Your task to perform on an android device: turn off smart reply in the gmail app Image 0: 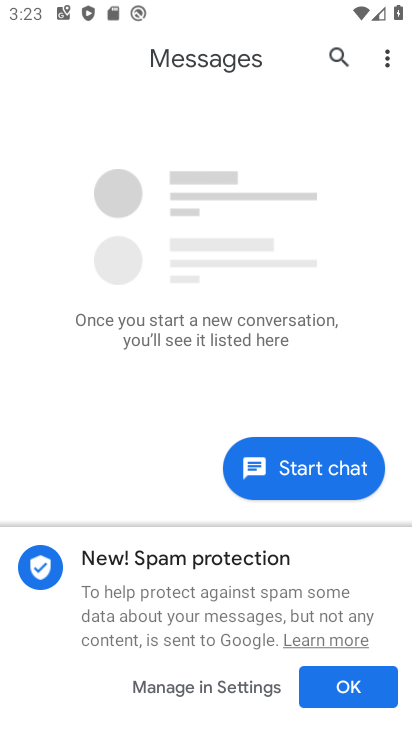
Step 0: press home button
Your task to perform on an android device: turn off smart reply in the gmail app Image 1: 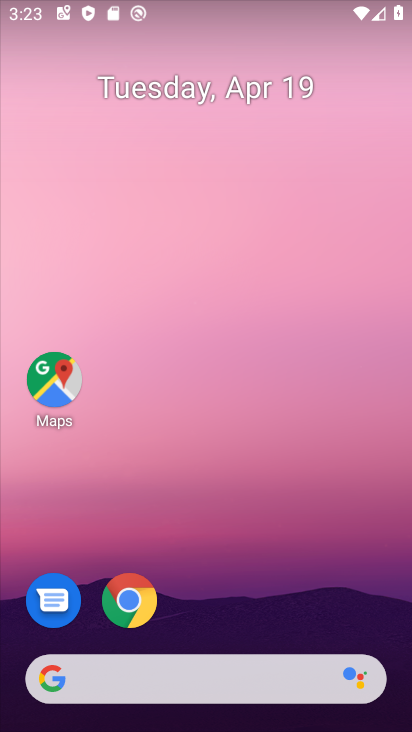
Step 1: drag from (239, 600) to (181, 104)
Your task to perform on an android device: turn off smart reply in the gmail app Image 2: 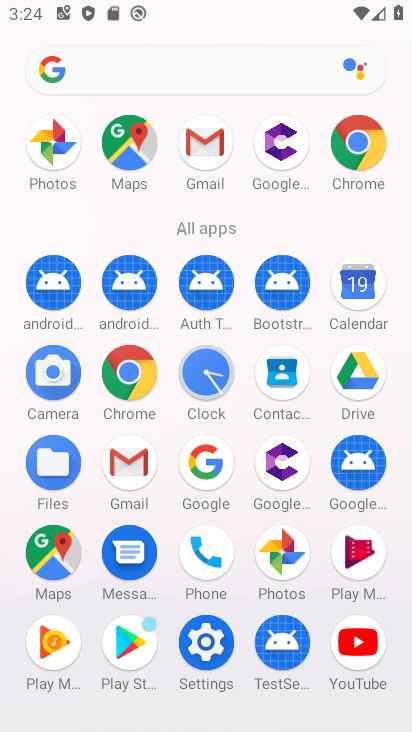
Step 2: click (205, 159)
Your task to perform on an android device: turn off smart reply in the gmail app Image 3: 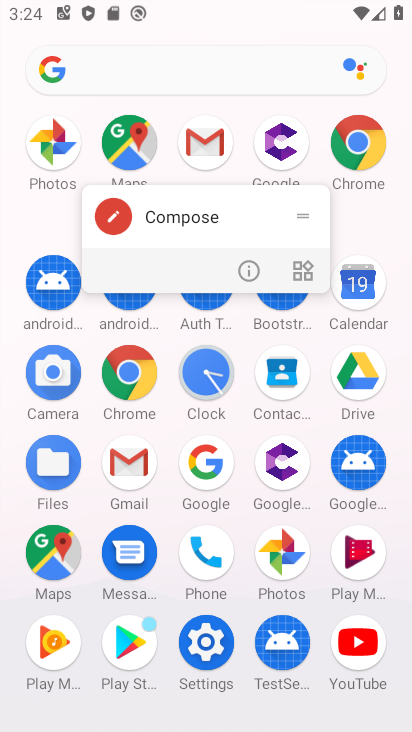
Step 3: click (207, 138)
Your task to perform on an android device: turn off smart reply in the gmail app Image 4: 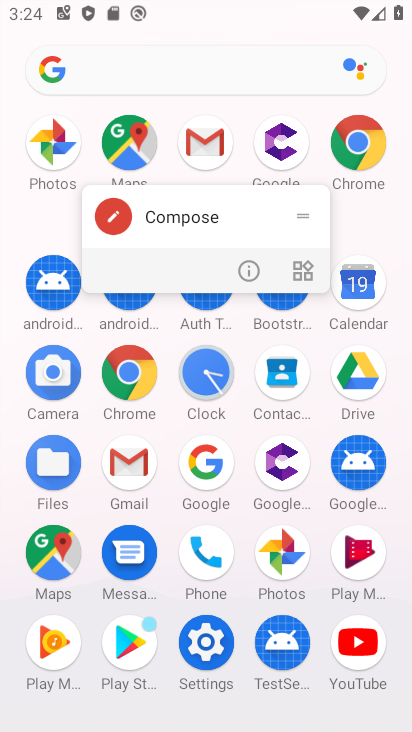
Step 4: click (207, 138)
Your task to perform on an android device: turn off smart reply in the gmail app Image 5: 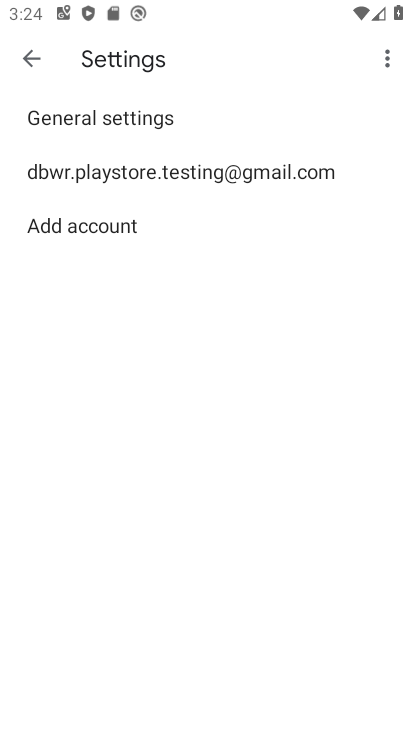
Step 5: click (237, 169)
Your task to perform on an android device: turn off smart reply in the gmail app Image 6: 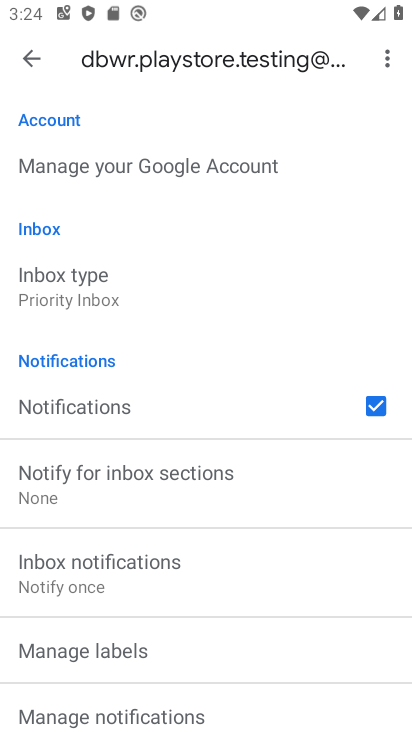
Step 6: drag from (142, 683) to (236, 96)
Your task to perform on an android device: turn off smart reply in the gmail app Image 7: 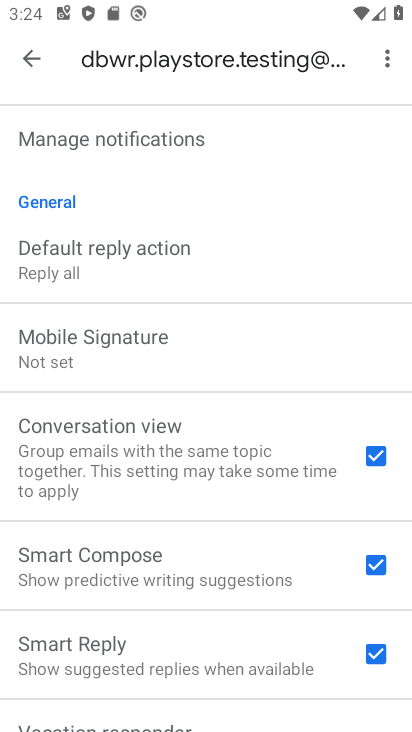
Step 7: drag from (183, 616) to (226, 320)
Your task to perform on an android device: turn off smart reply in the gmail app Image 8: 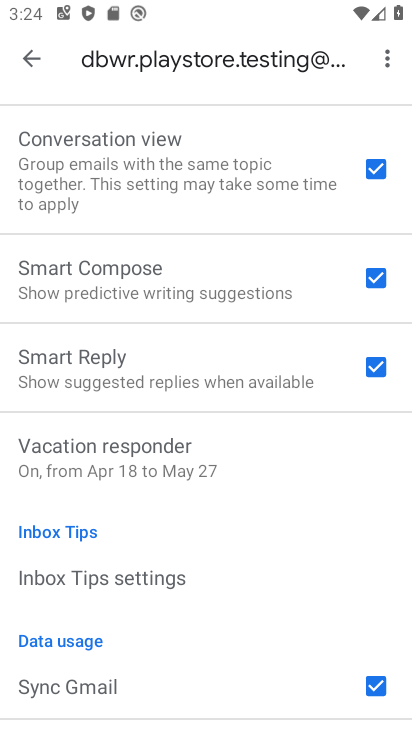
Step 8: click (372, 367)
Your task to perform on an android device: turn off smart reply in the gmail app Image 9: 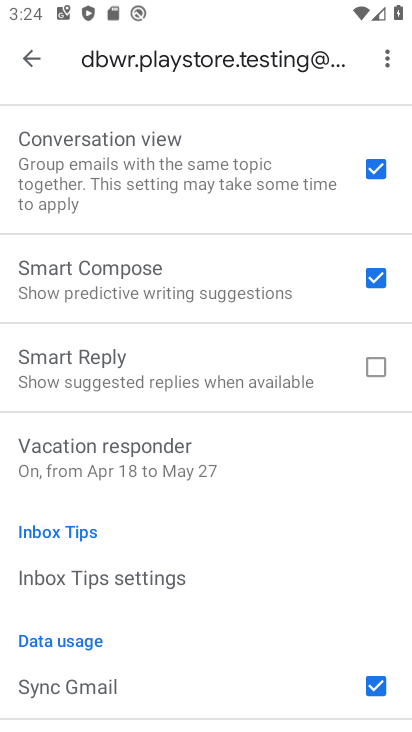
Step 9: task complete